Your task to perform on an android device: What's the news in Venezuela? Image 0: 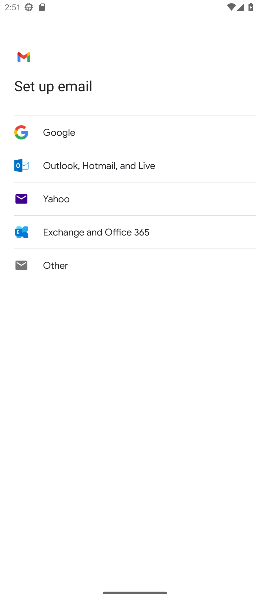
Step 0: press home button
Your task to perform on an android device: What's the news in Venezuela? Image 1: 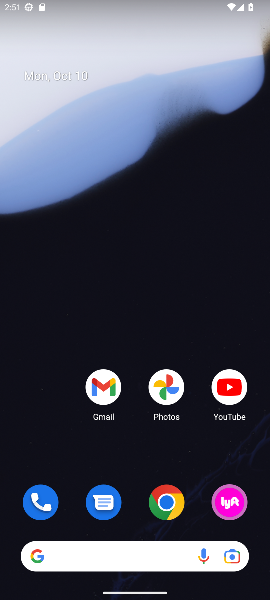
Step 1: click (164, 504)
Your task to perform on an android device: What's the news in Venezuela? Image 2: 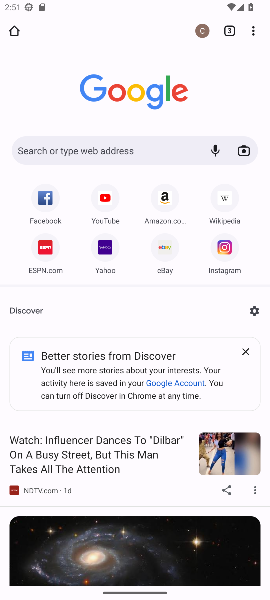
Step 2: click (114, 149)
Your task to perform on an android device: What's the news in Venezuela? Image 3: 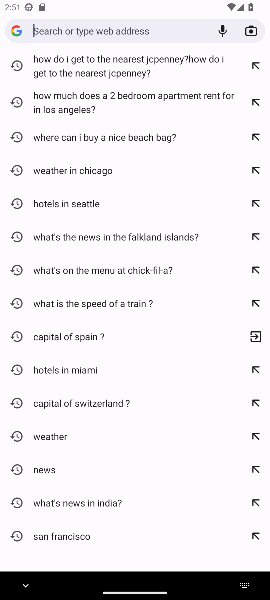
Step 3: type "What's the news in Venezuela?"
Your task to perform on an android device: What's the news in Venezuela? Image 4: 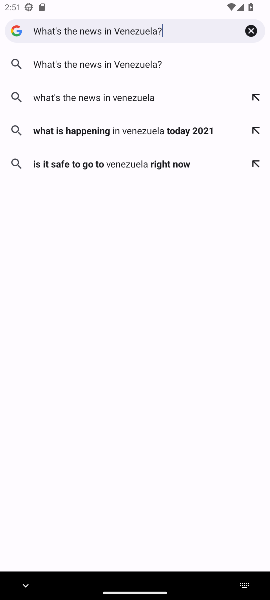
Step 4: click (137, 63)
Your task to perform on an android device: What's the news in Venezuela? Image 5: 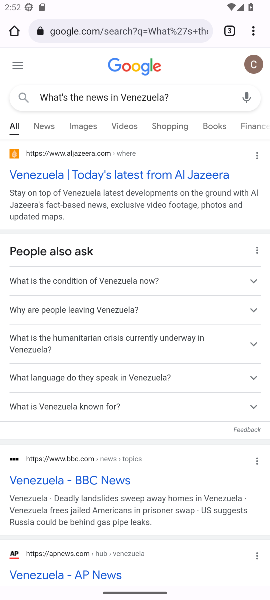
Step 5: click (194, 170)
Your task to perform on an android device: What's the news in Venezuela? Image 6: 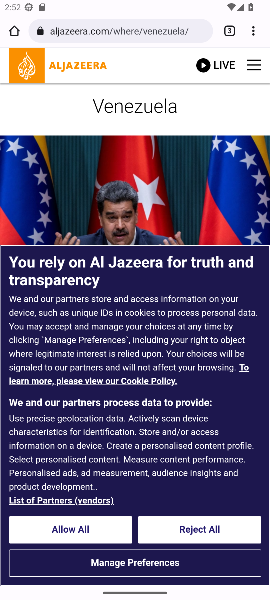
Step 6: task complete